Your task to perform on an android device: see creations saved in the google photos Image 0: 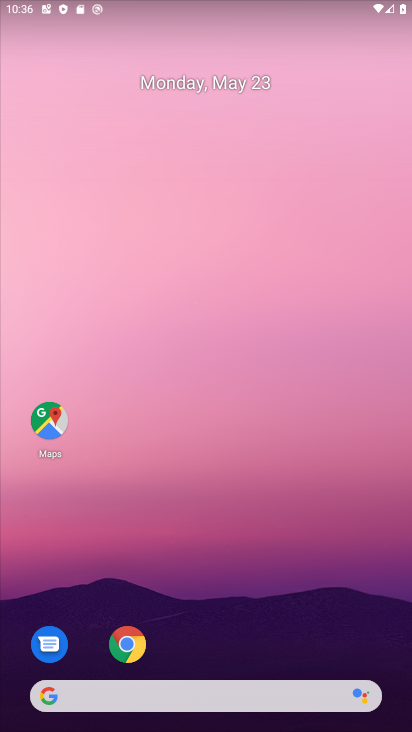
Step 0: drag from (227, 681) to (114, 98)
Your task to perform on an android device: see creations saved in the google photos Image 1: 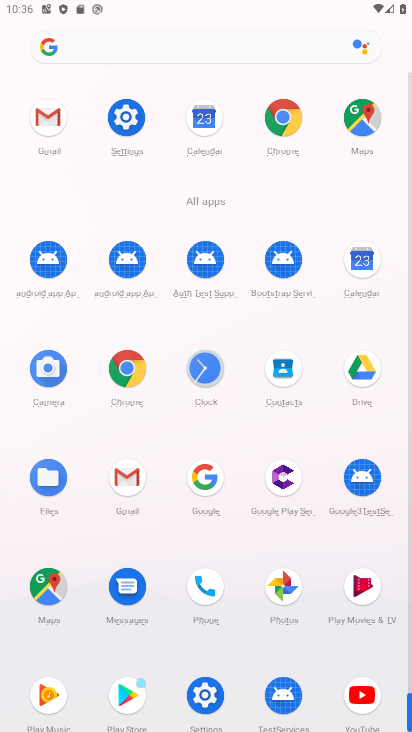
Step 1: click (274, 583)
Your task to perform on an android device: see creations saved in the google photos Image 2: 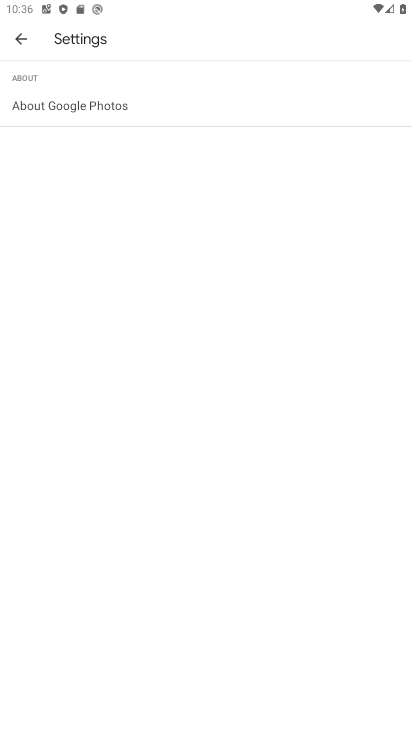
Step 2: click (21, 36)
Your task to perform on an android device: see creations saved in the google photos Image 3: 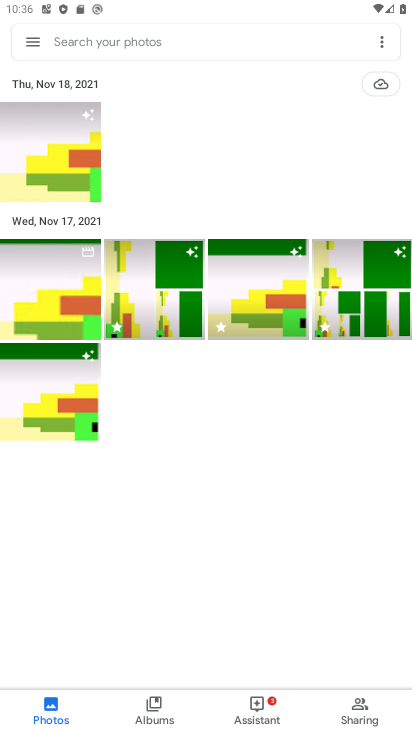
Step 3: click (62, 305)
Your task to perform on an android device: see creations saved in the google photos Image 4: 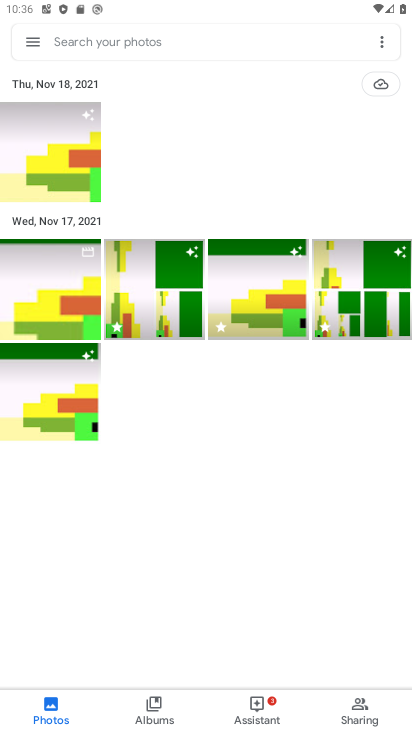
Step 4: click (63, 304)
Your task to perform on an android device: see creations saved in the google photos Image 5: 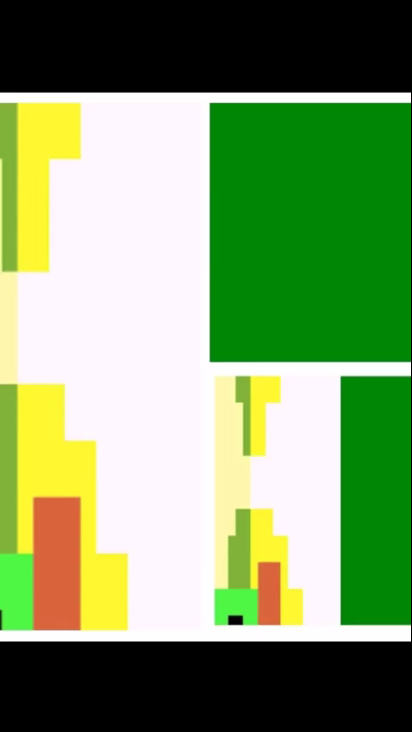
Step 5: click (38, 48)
Your task to perform on an android device: see creations saved in the google photos Image 6: 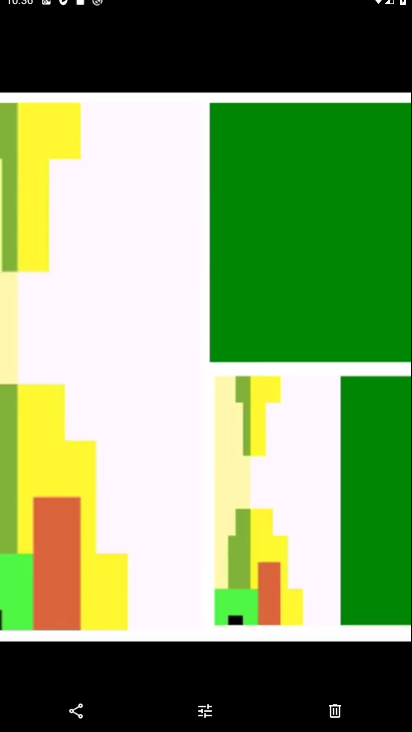
Step 6: click (38, 48)
Your task to perform on an android device: see creations saved in the google photos Image 7: 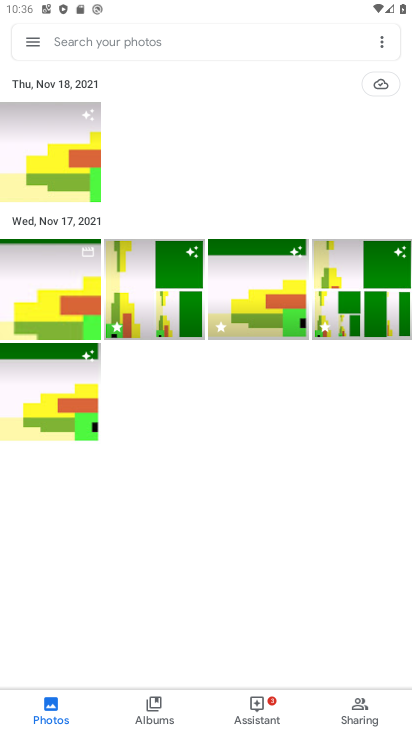
Step 7: task complete